Your task to perform on an android device: Search for flights from London to Paris Image 0: 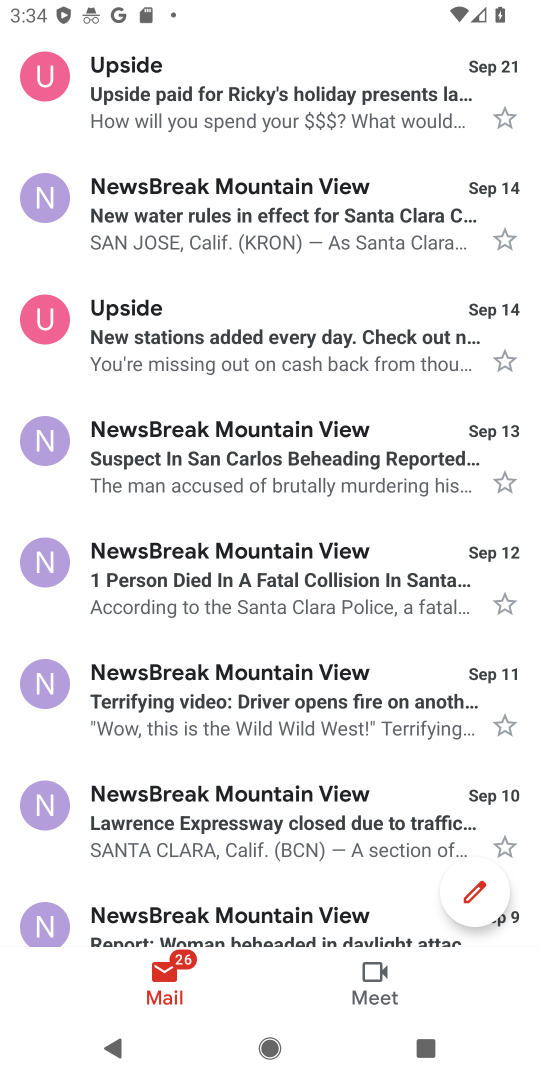
Step 0: press home button
Your task to perform on an android device: Search for flights from London to Paris Image 1: 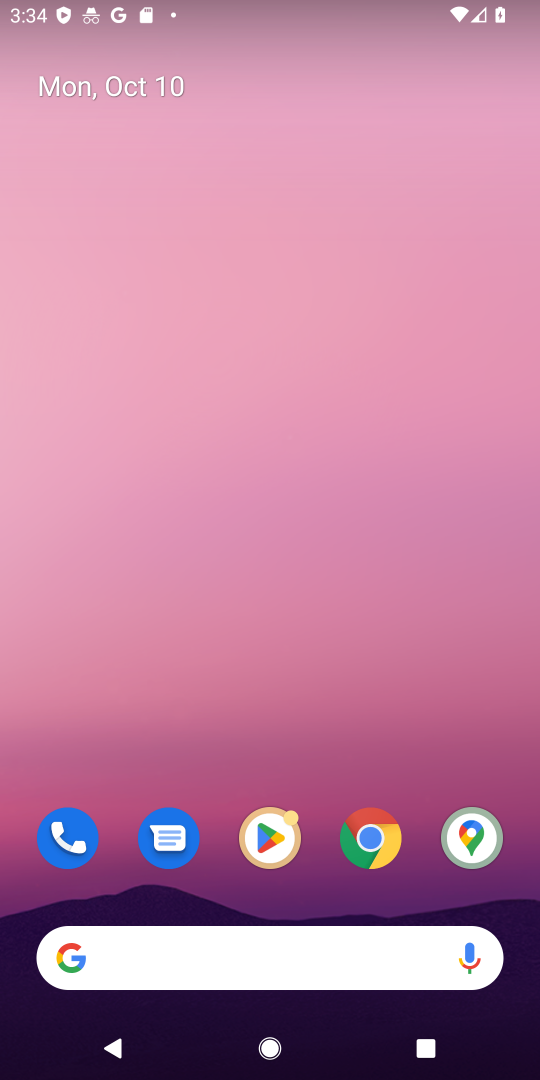
Step 1: click (160, 944)
Your task to perform on an android device: Search for flights from London to Paris Image 2: 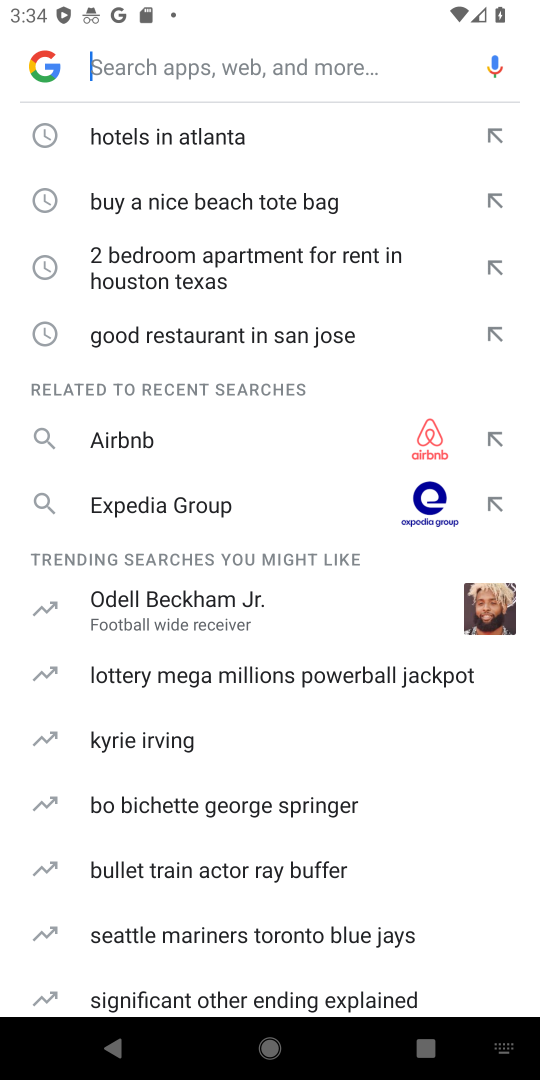
Step 2: type "flights from London to Paris"
Your task to perform on an android device: Search for flights from London to Paris Image 3: 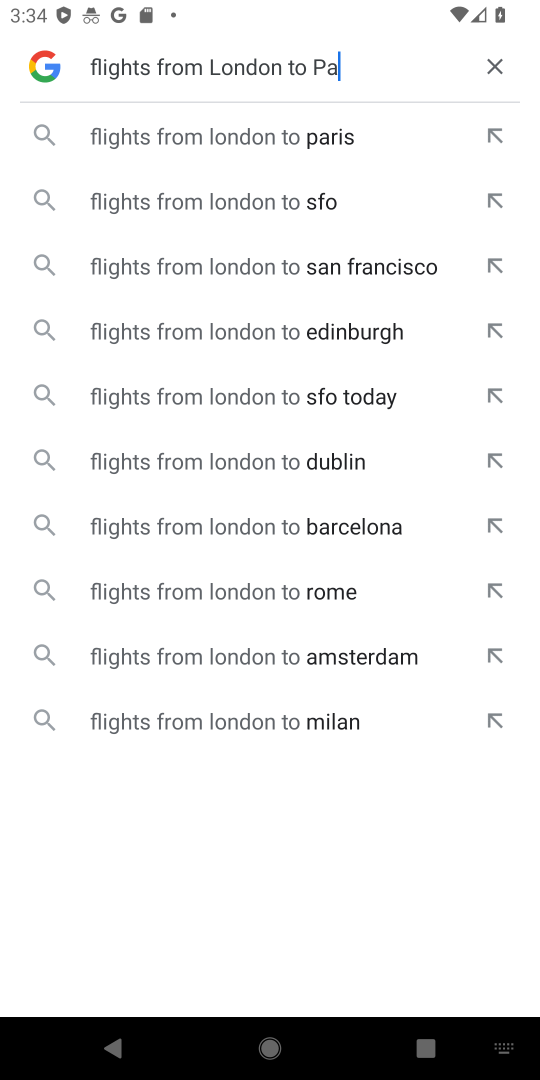
Step 3: type ""
Your task to perform on an android device: Search for flights from London to Paris Image 4: 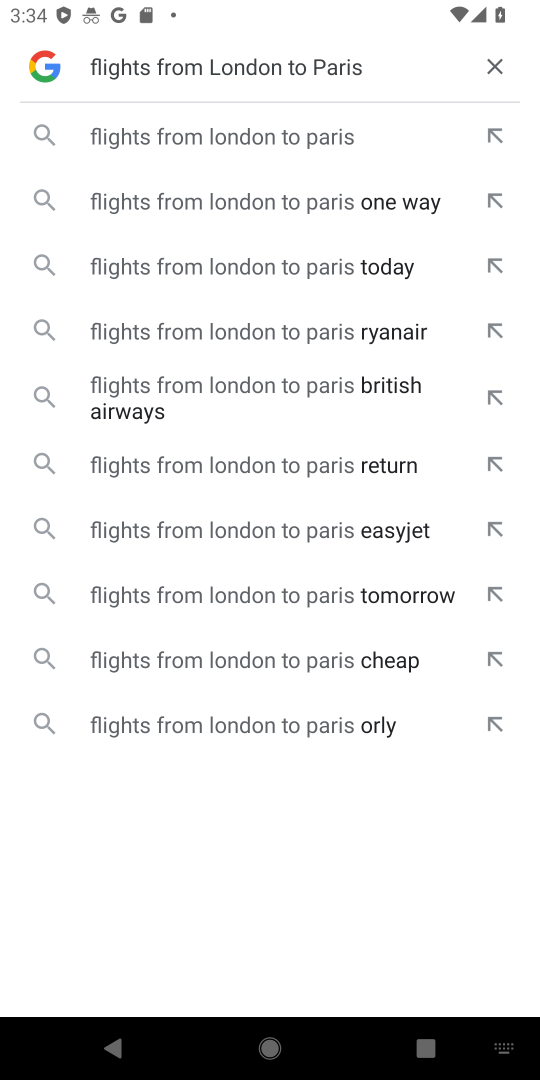
Step 4: click (217, 150)
Your task to perform on an android device: Search for flights from London to Paris Image 5: 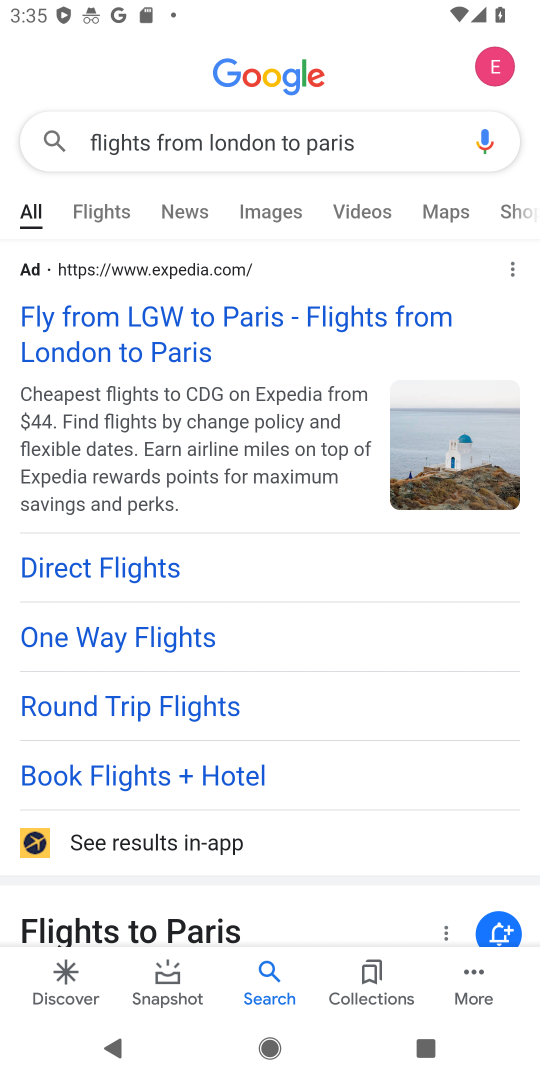
Step 5: task complete